Your task to perform on an android device: What is the recent news? Image 0: 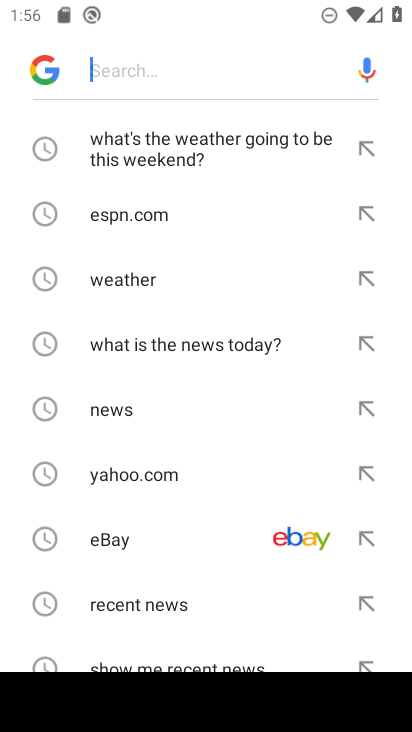
Step 0: type "what is the recent news"
Your task to perform on an android device: What is the recent news? Image 1: 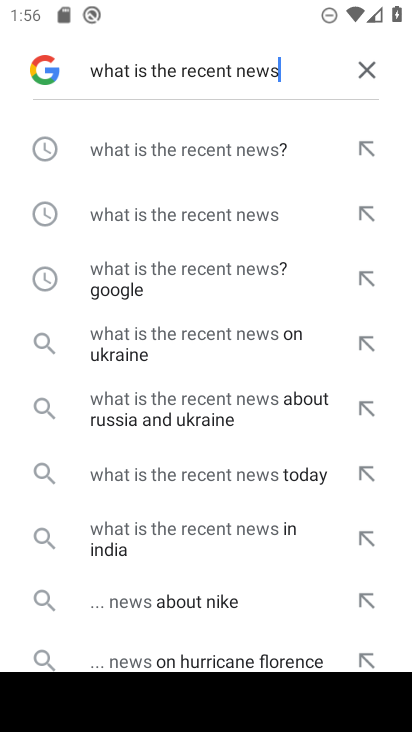
Step 1: click (210, 156)
Your task to perform on an android device: What is the recent news? Image 2: 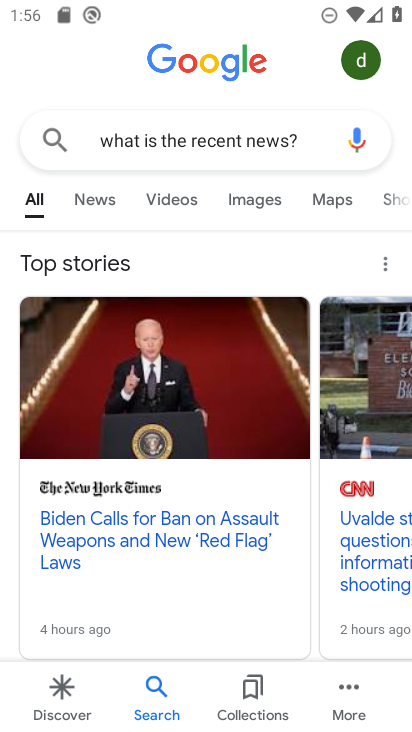
Step 2: click (103, 205)
Your task to perform on an android device: What is the recent news? Image 3: 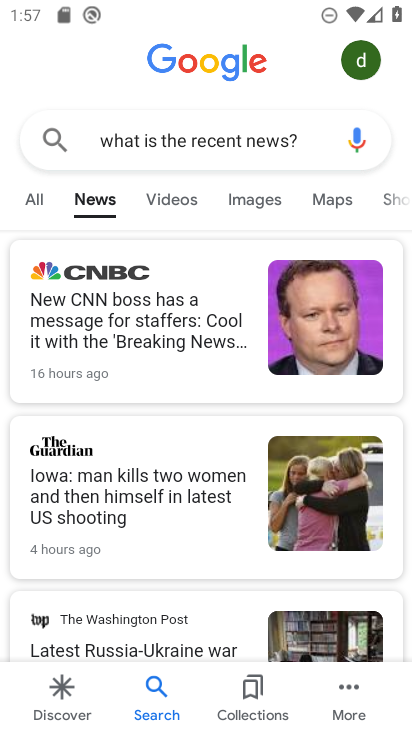
Step 3: task complete